Your task to perform on an android device: Search for usb-c to usb-b on amazon, select the first entry, add it to the cart, then select checkout. Image 0: 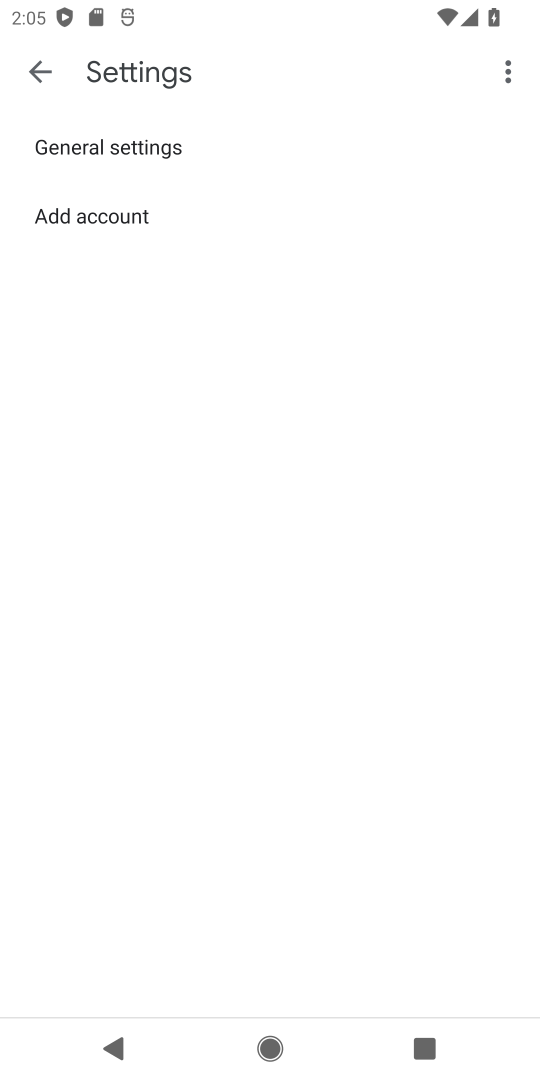
Step 0: press home button
Your task to perform on an android device: Search for usb-c to usb-b on amazon, select the first entry, add it to the cart, then select checkout. Image 1: 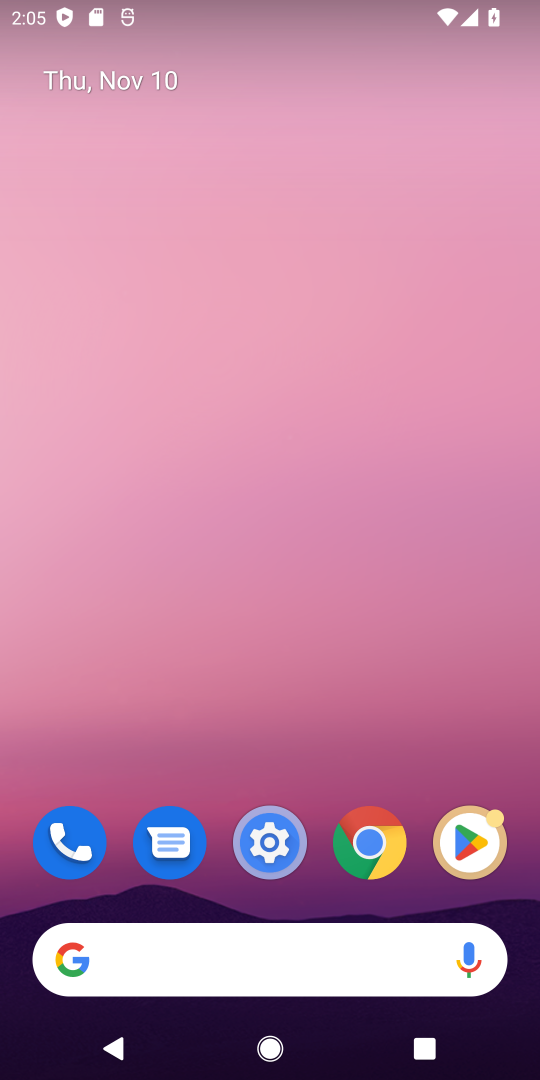
Step 1: click (100, 964)
Your task to perform on an android device: Search for usb-c to usb-b on amazon, select the first entry, add it to the cart, then select checkout. Image 2: 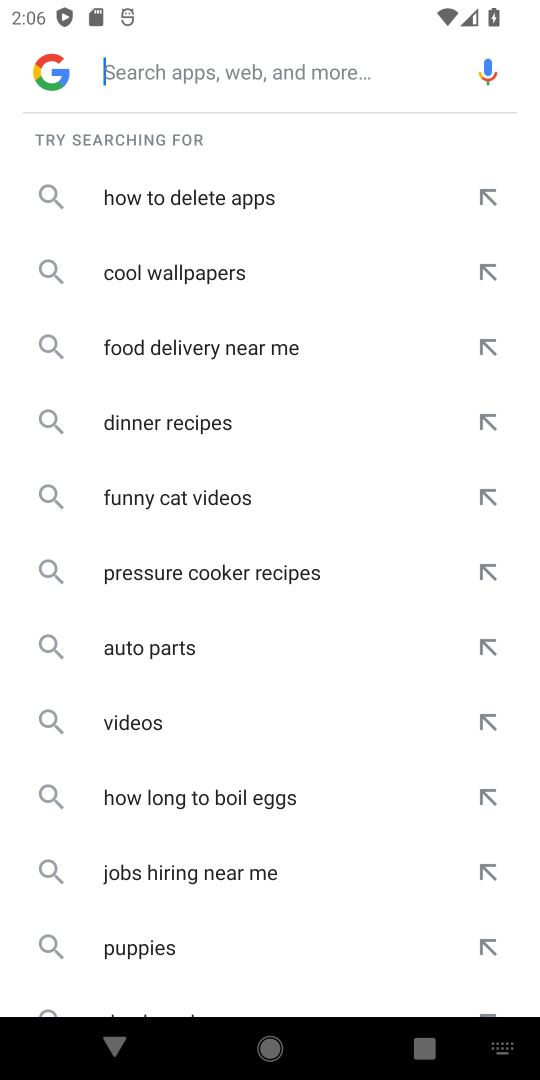
Step 2: type "amazon"
Your task to perform on an android device: Search for usb-c to usb-b on amazon, select the first entry, add it to the cart, then select checkout. Image 3: 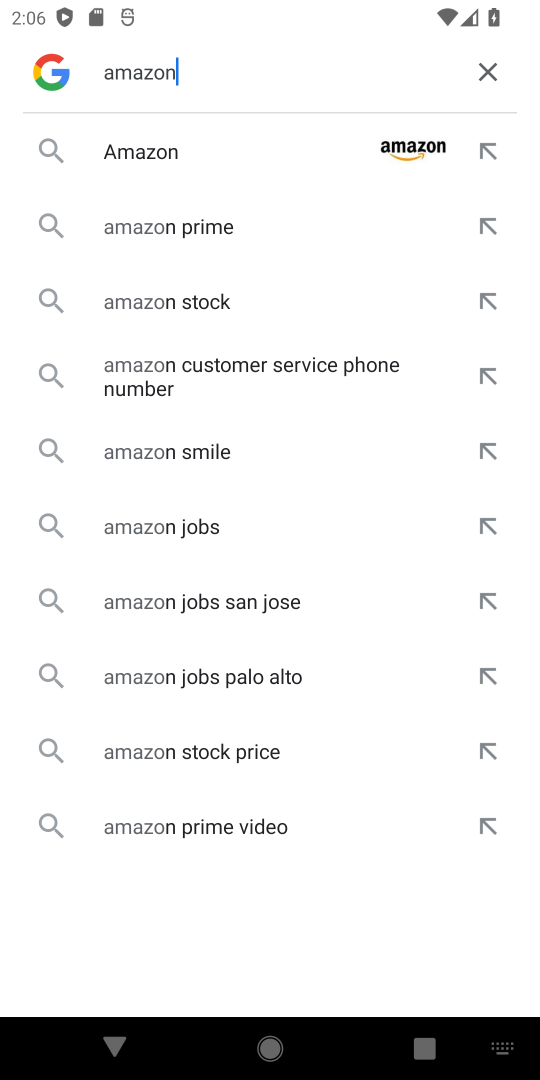
Step 3: press enter
Your task to perform on an android device: Search for usb-c to usb-b on amazon, select the first entry, add it to the cart, then select checkout. Image 4: 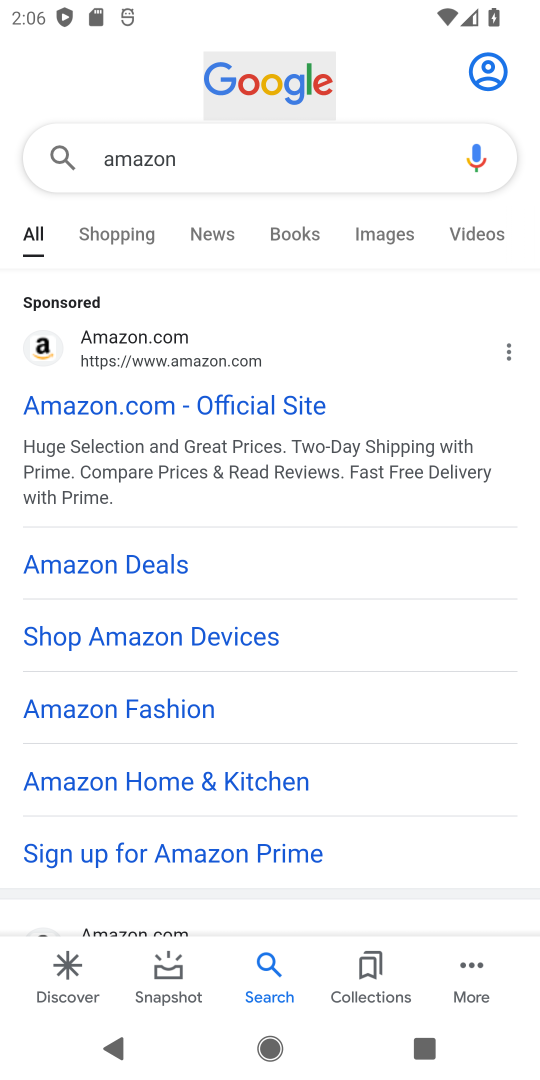
Step 4: click (171, 404)
Your task to perform on an android device: Search for usb-c to usb-b on amazon, select the first entry, add it to the cart, then select checkout. Image 5: 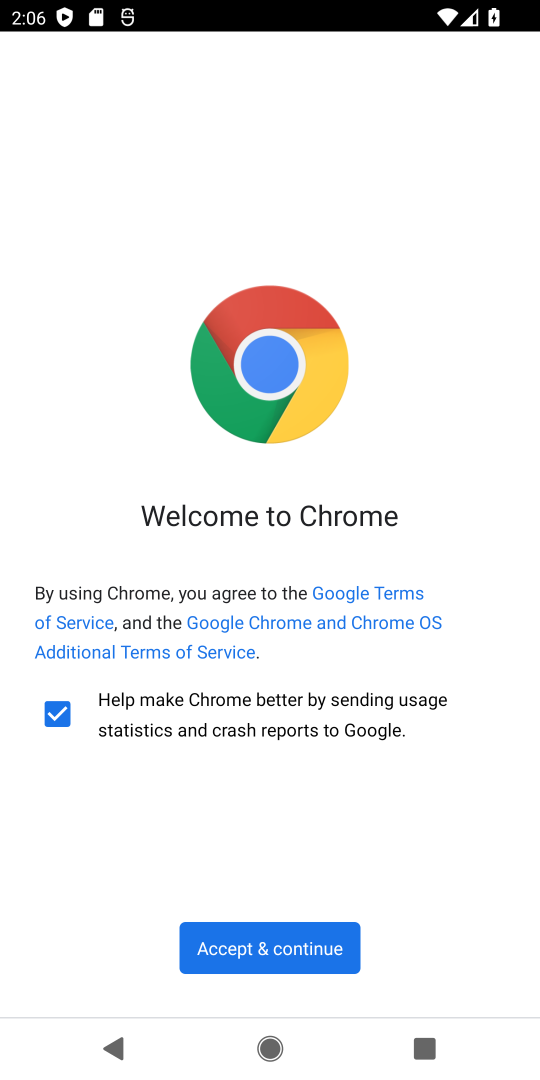
Step 5: click (246, 951)
Your task to perform on an android device: Search for usb-c to usb-b on amazon, select the first entry, add it to the cart, then select checkout. Image 6: 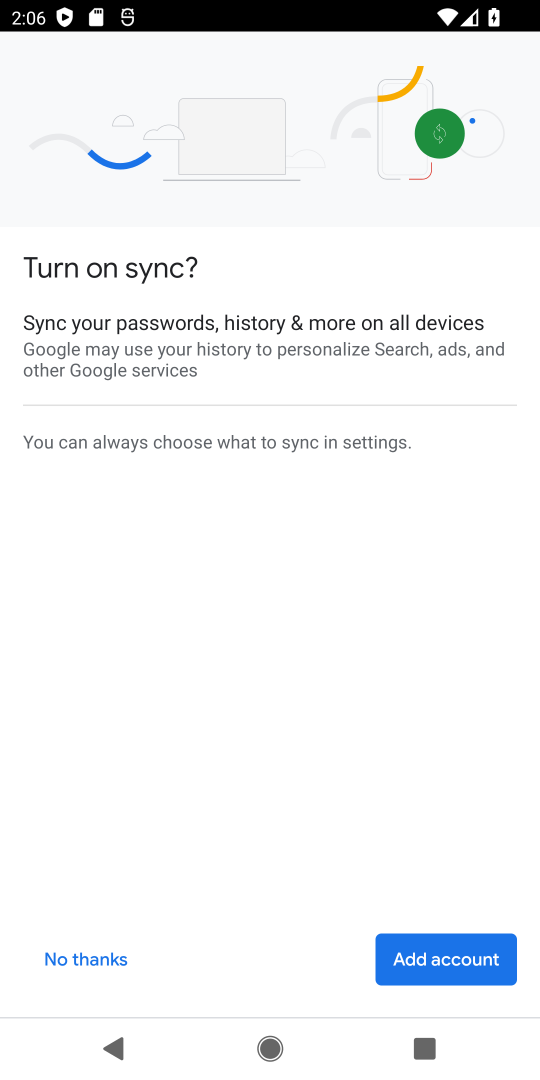
Step 6: click (86, 966)
Your task to perform on an android device: Search for usb-c to usb-b on amazon, select the first entry, add it to the cart, then select checkout. Image 7: 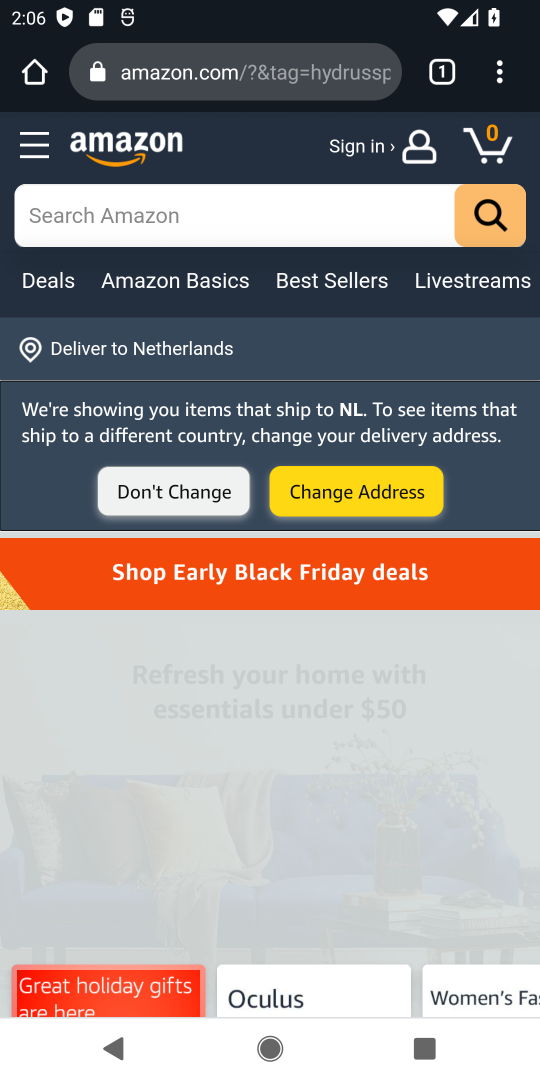
Step 7: click (187, 208)
Your task to perform on an android device: Search for usb-c to usb-b on amazon, select the first entry, add it to the cart, then select checkout. Image 8: 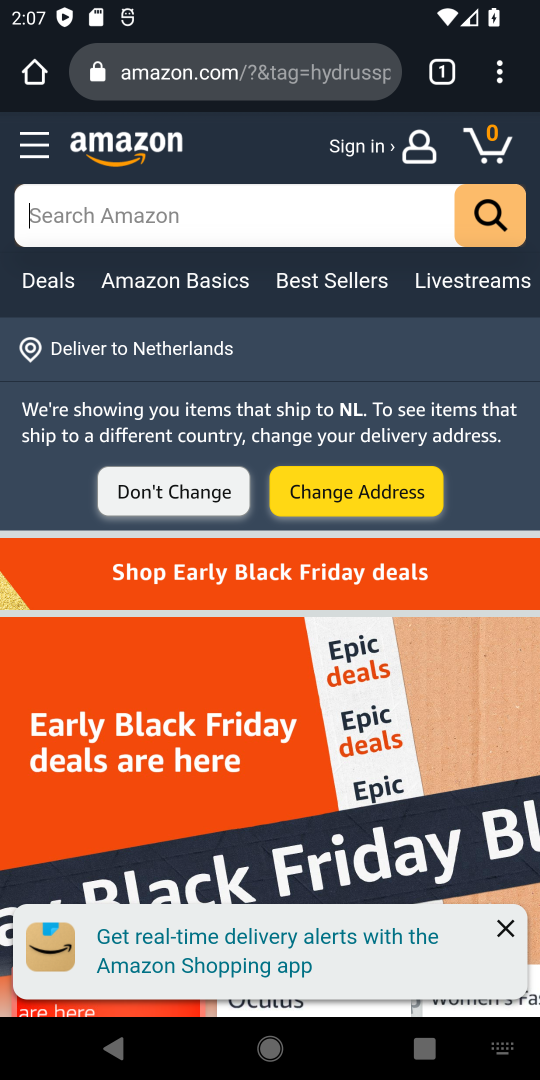
Step 8: type "usb-c to usb-b"
Your task to perform on an android device: Search for usb-c to usb-b on amazon, select the first entry, add it to the cart, then select checkout. Image 9: 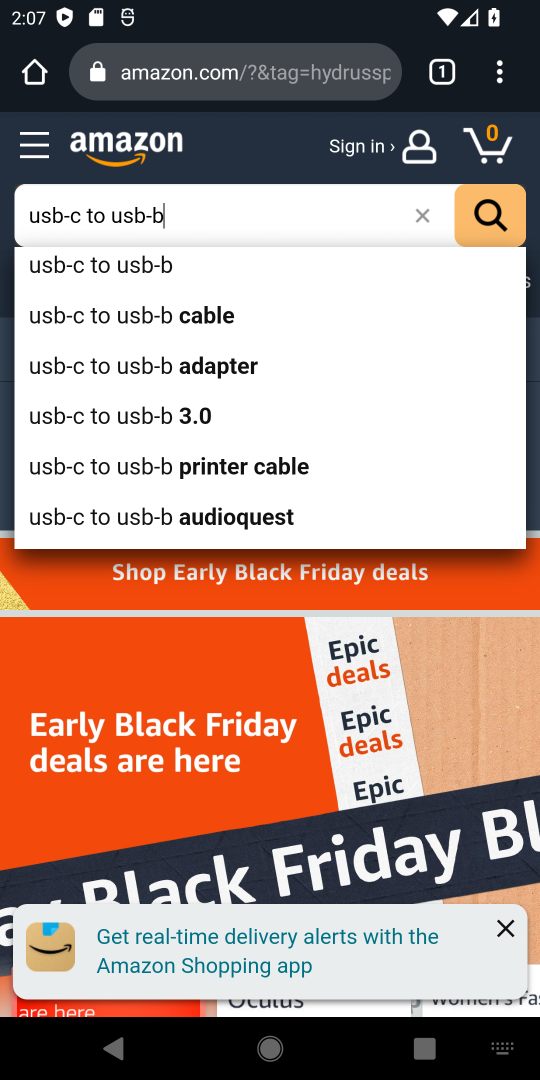
Step 9: click (494, 204)
Your task to perform on an android device: Search for usb-c to usb-b on amazon, select the first entry, add it to the cart, then select checkout. Image 10: 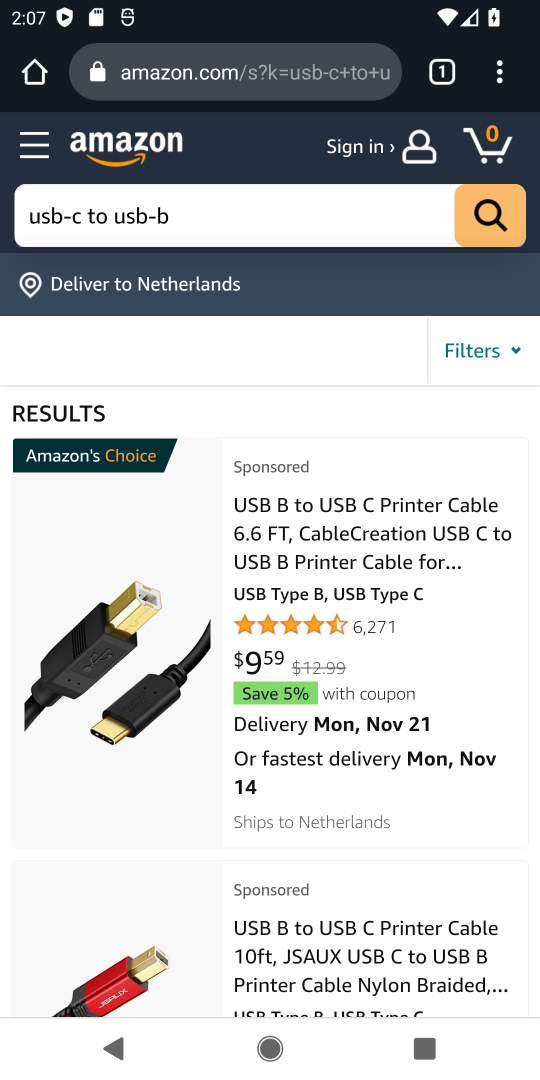
Step 10: click (362, 522)
Your task to perform on an android device: Search for usb-c to usb-b on amazon, select the first entry, add it to the cart, then select checkout. Image 11: 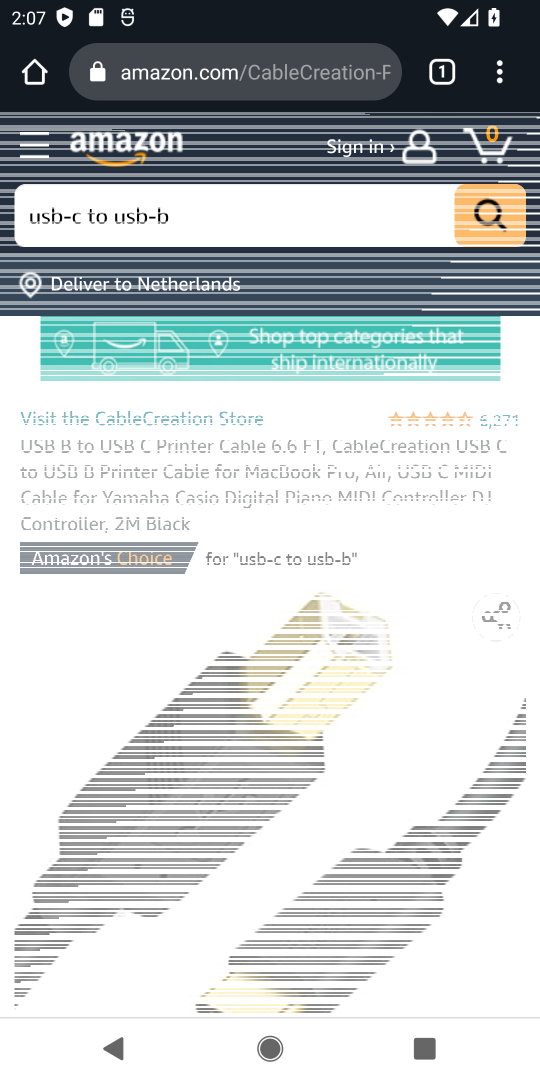
Step 11: drag from (425, 912) to (427, 424)
Your task to perform on an android device: Search for usb-c to usb-b on amazon, select the first entry, add it to the cart, then select checkout. Image 12: 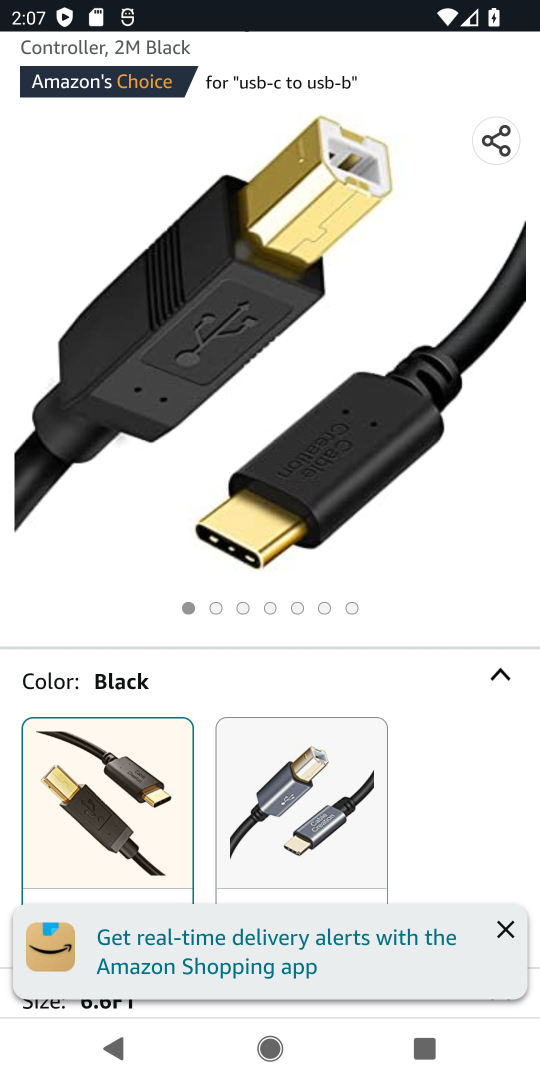
Step 12: drag from (351, 834) to (381, 381)
Your task to perform on an android device: Search for usb-c to usb-b on amazon, select the first entry, add it to the cart, then select checkout. Image 13: 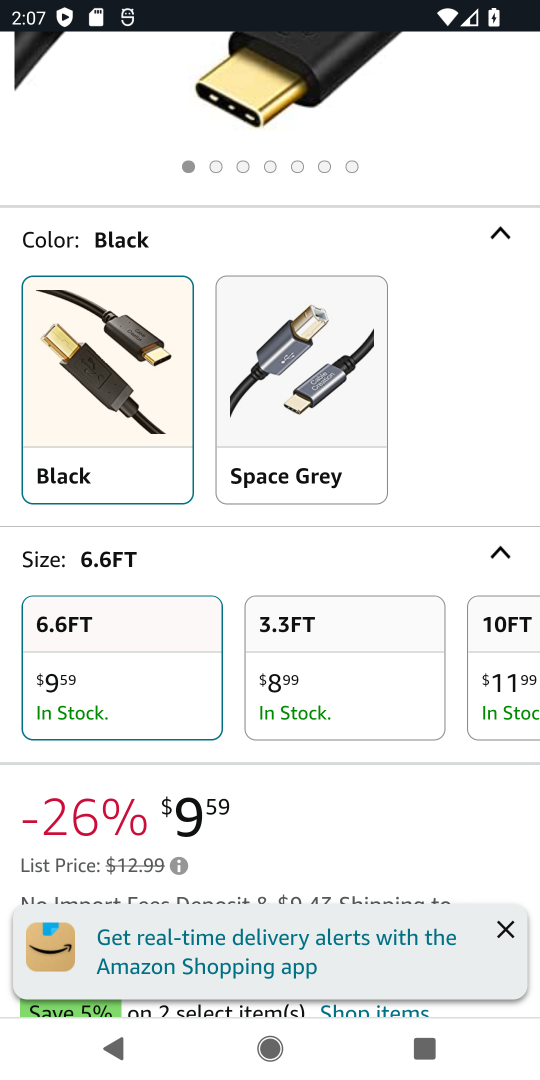
Step 13: drag from (425, 792) to (437, 260)
Your task to perform on an android device: Search for usb-c to usb-b on amazon, select the first entry, add it to the cart, then select checkout. Image 14: 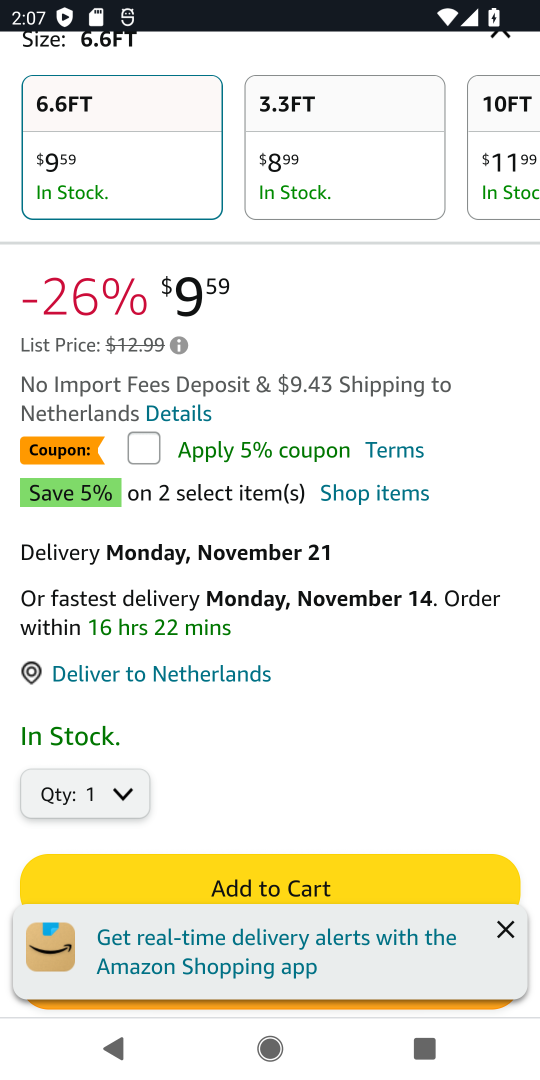
Step 14: drag from (342, 738) to (351, 321)
Your task to perform on an android device: Search for usb-c to usb-b on amazon, select the first entry, add it to the cart, then select checkout. Image 15: 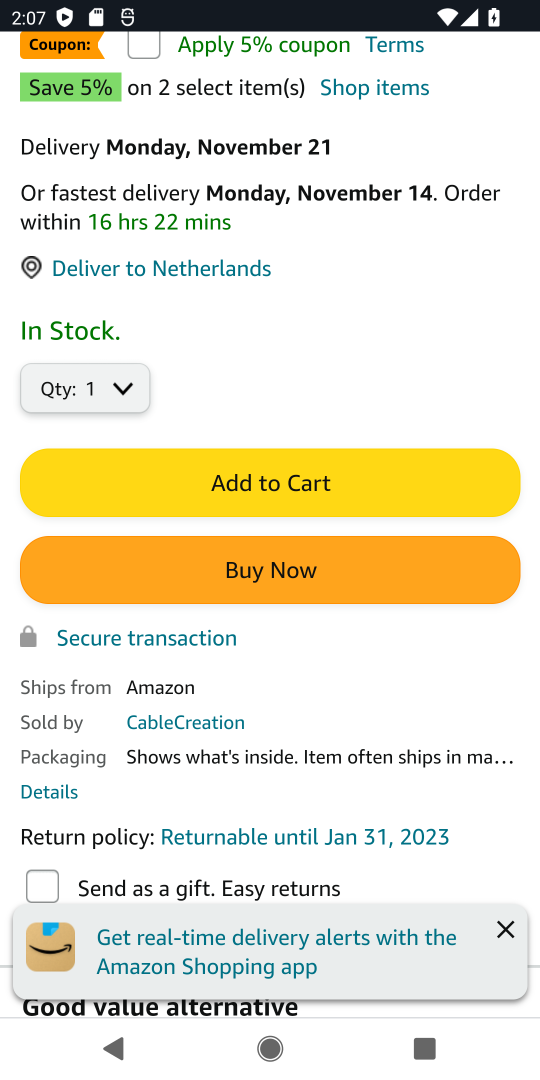
Step 15: click (352, 484)
Your task to perform on an android device: Search for usb-c to usb-b on amazon, select the first entry, add it to the cart, then select checkout. Image 16: 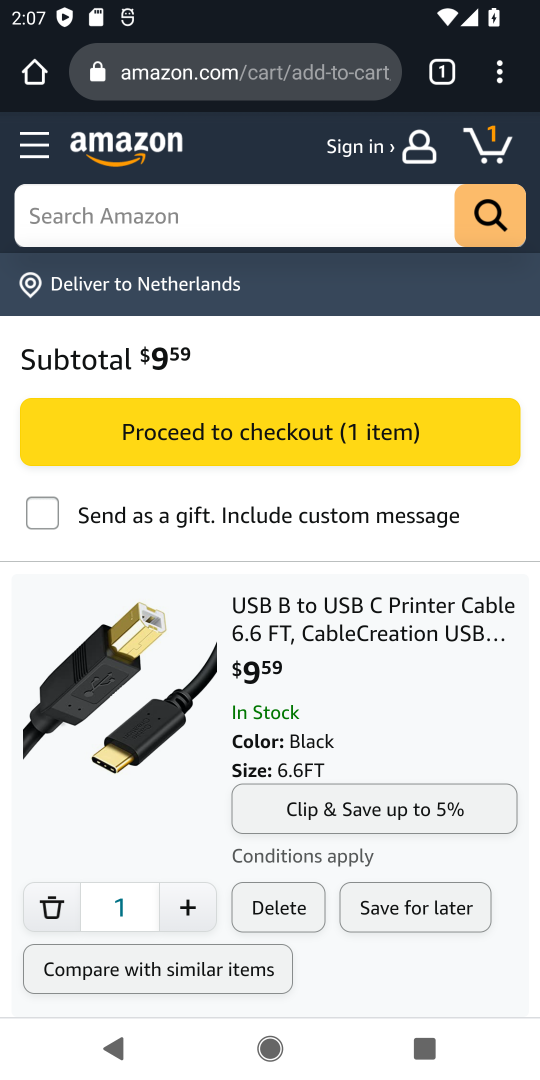
Step 16: click (284, 432)
Your task to perform on an android device: Search for usb-c to usb-b on amazon, select the first entry, add it to the cart, then select checkout. Image 17: 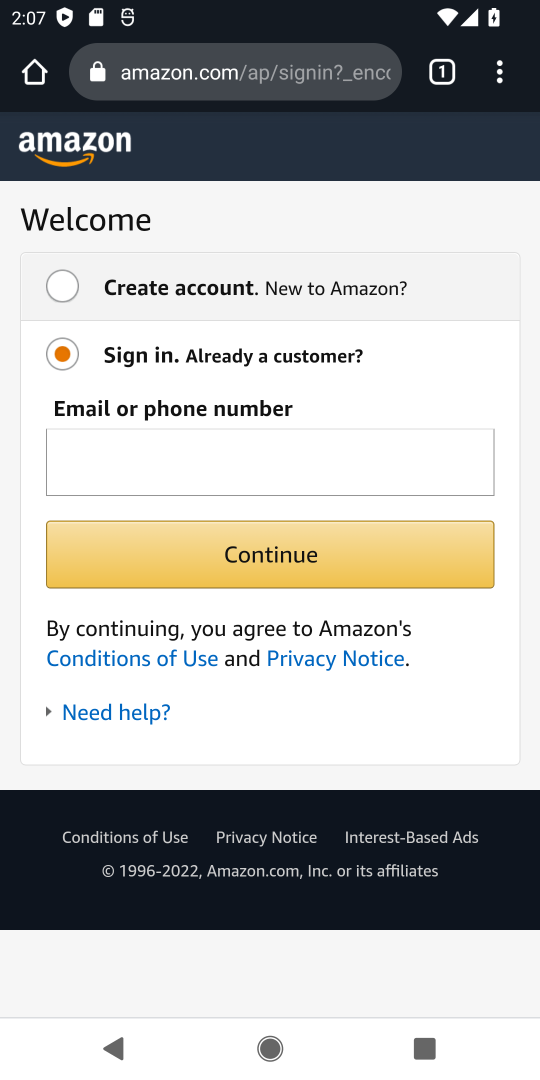
Step 17: task complete